Your task to perform on an android device: change alarm snooze length Image 0: 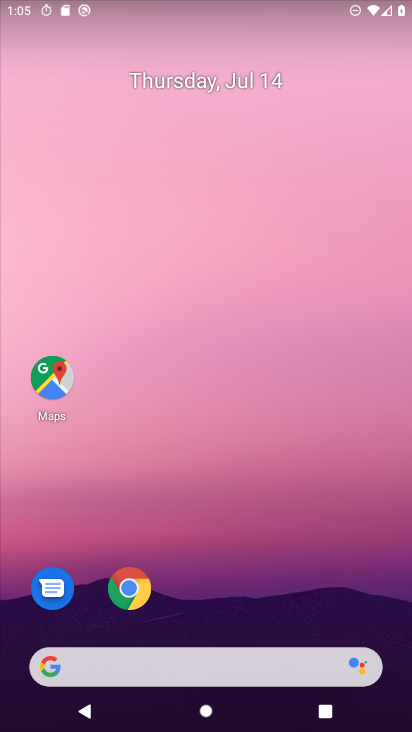
Step 0: drag from (185, 663) to (297, 191)
Your task to perform on an android device: change alarm snooze length Image 1: 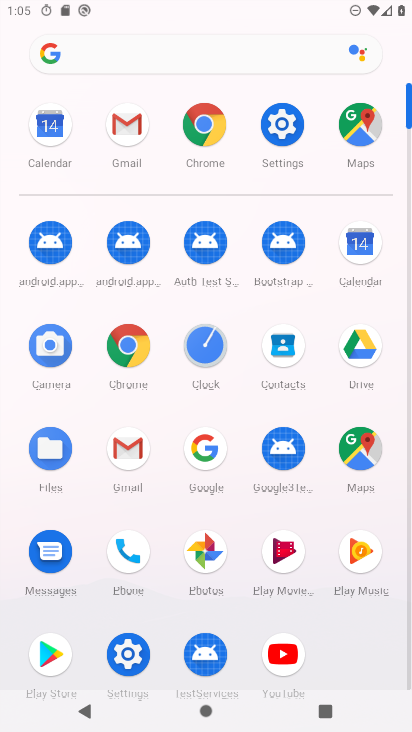
Step 1: click (204, 352)
Your task to perform on an android device: change alarm snooze length Image 2: 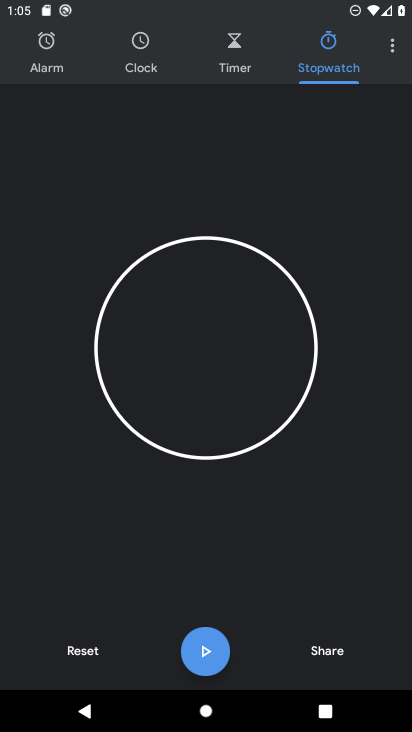
Step 2: click (394, 50)
Your task to perform on an android device: change alarm snooze length Image 3: 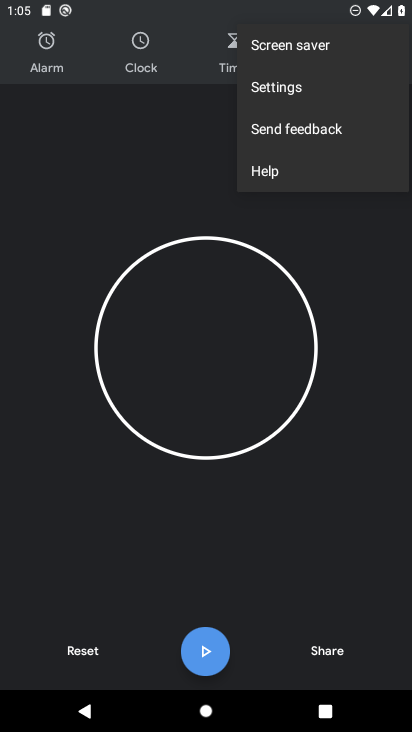
Step 3: click (297, 90)
Your task to perform on an android device: change alarm snooze length Image 4: 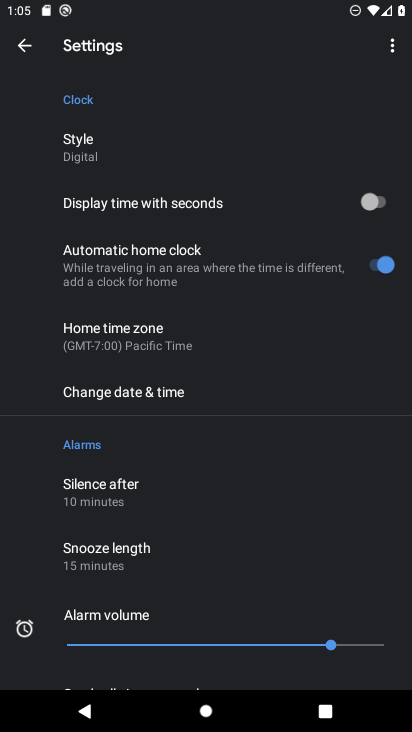
Step 4: drag from (237, 585) to (309, 321)
Your task to perform on an android device: change alarm snooze length Image 5: 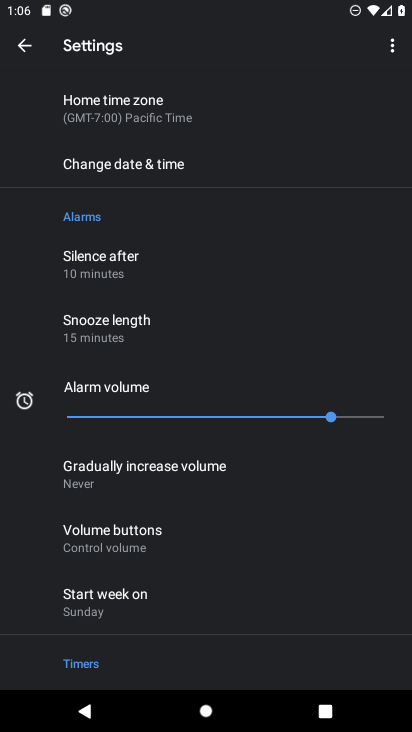
Step 5: click (127, 324)
Your task to perform on an android device: change alarm snooze length Image 6: 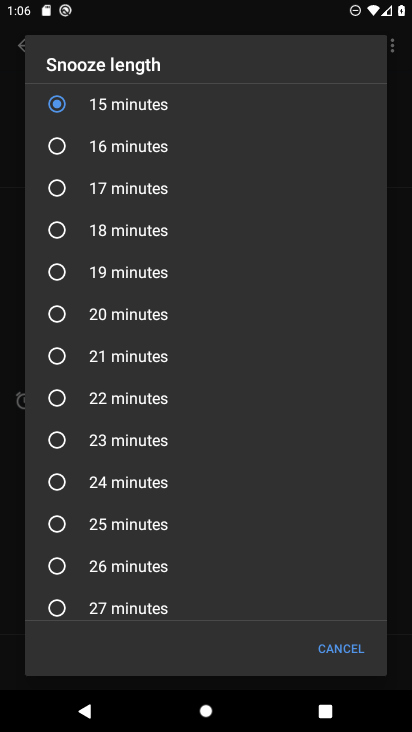
Step 6: click (63, 312)
Your task to perform on an android device: change alarm snooze length Image 7: 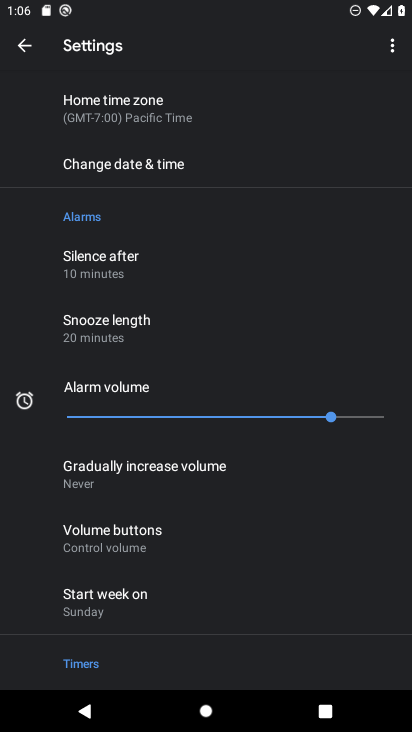
Step 7: task complete